Your task to perform on an android device: View the shopping cart on walmart.com. Search for logitech g903 on walmart.com, select the first entry, and add it to the cart. Image 0: 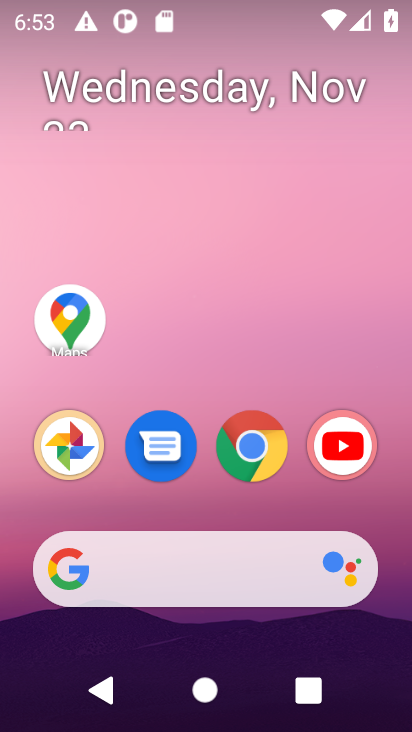
Step 0: click (247, 570)
Your task to perform on an android device: View the shopping cart on walmart.com. Search for logitech g903 on walmart.com, select the first entry, and add it to the cart. Image 1: 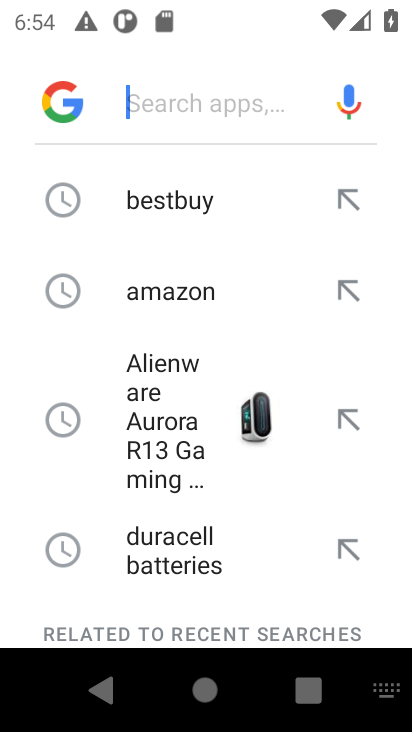
Step 1: type "walmarts"
Your task to perform on an android device: View the shopping cart on walmart.com. Search for logitech g903 on walmart.com, select the first entry, and add it to the cart. Image 2: 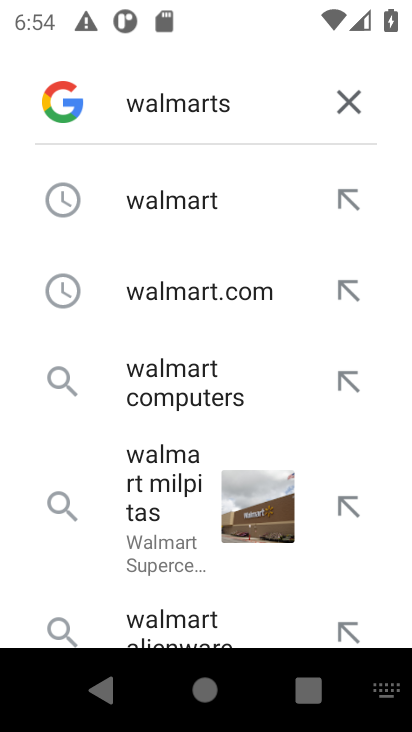
Step 2: click (192, 227)
Your task to perform on an android device: View the shopping cart on walmart.com. Search for logitech g903 on walmart.com, select the first entry, and add it to the cart. Image 3: 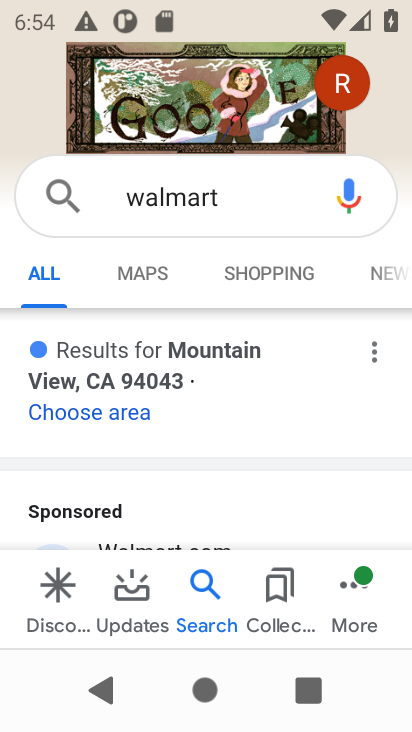
Step 3: drag from (241, 510) to (270, 175)
Your task to perform on an android device: View the shopping cart on walmart.com. Search for logitech g903 on walmart.com, select the first entry, and add it to the cart. Image 4: 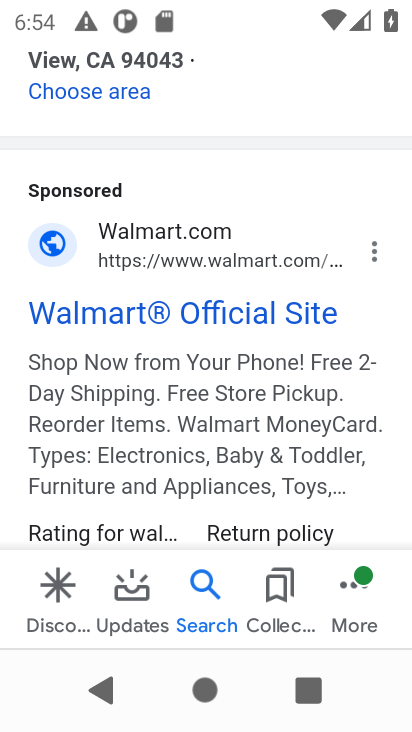
Step 4: click (169, 318)
Your task to perform on an android device: View the shopping cart on walmart.com. Search for logitech g903 on walmart.com, select the first entry, and add it to the cart. Image 5: 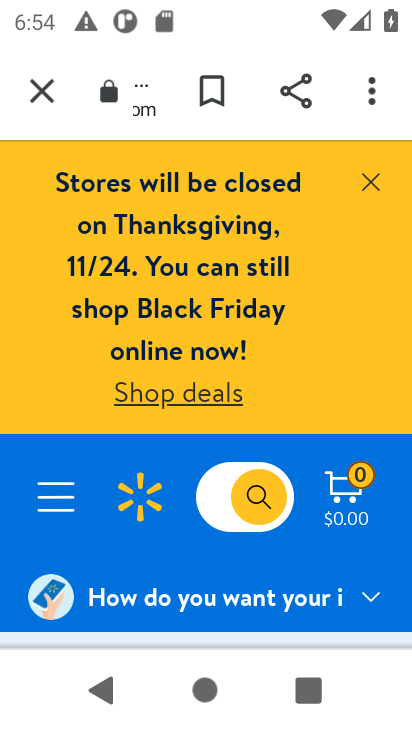
Step 5: click (368, 184)
Your task to perform on an android device: View the shopping cart on walmart.com. Search for logitech g903 on walmart.com, select the first entry, and add it to the cart. Image 6: 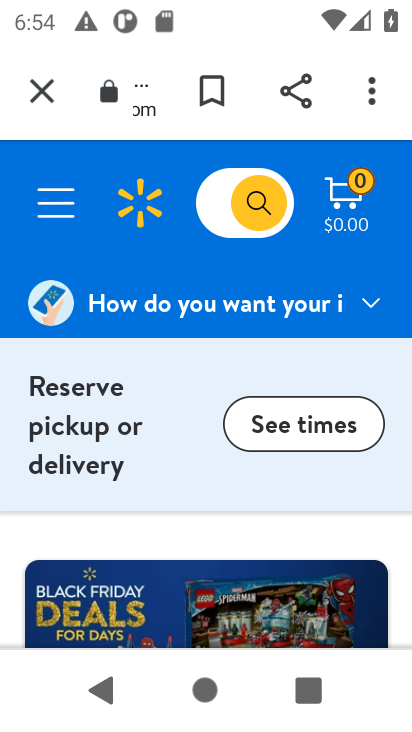
Step 6: click (230, 225)
Your task to perform on an android device: View the shopping cart on walmart.com. Search for logitech g903 on walmart.com, select the first entry, and add it to the cart. Image 7: 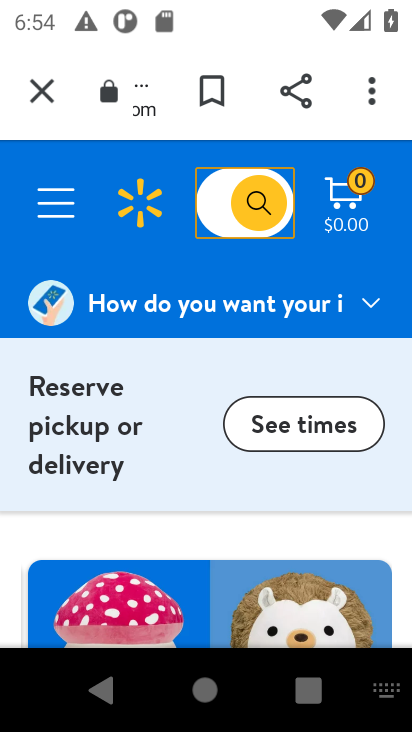
Step 7: type "logitech g502"
Your task to perform on an android device: View the shopping cart on walmart.com. Search for logitech g903 on walmart.com, select the first entry, and add it to the cart. Image 8: 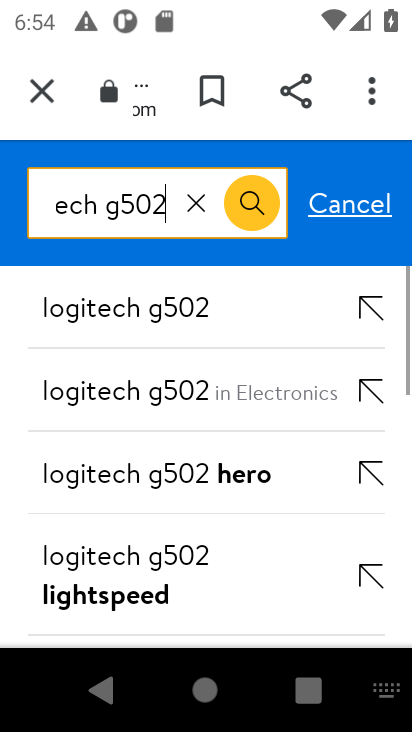
Step 8: click (229, 417)
Your task to perform on an android device: View the shopping cart on walmart.com. Search for logitech g903 on walmart.com, select the first entry, and add it to the cart. Image 9: 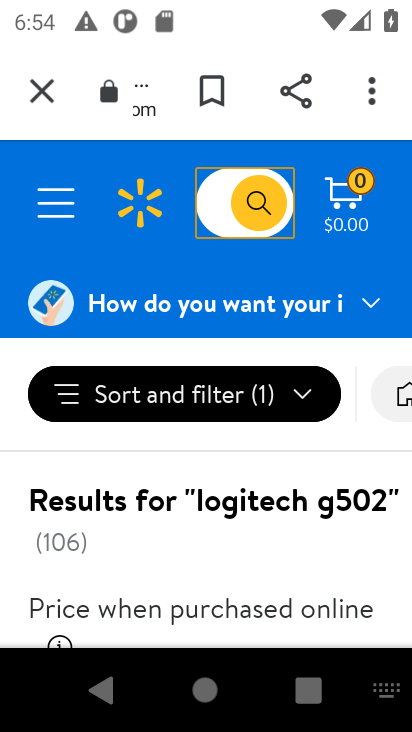
Step 9: drag from (216, 573) to (208, 88)
Your task to perform on an android device: View the shopping cart on walmart.com. Search for logitech g903 on walmart.com, select the first entry, and add it to the cart. Image 10: 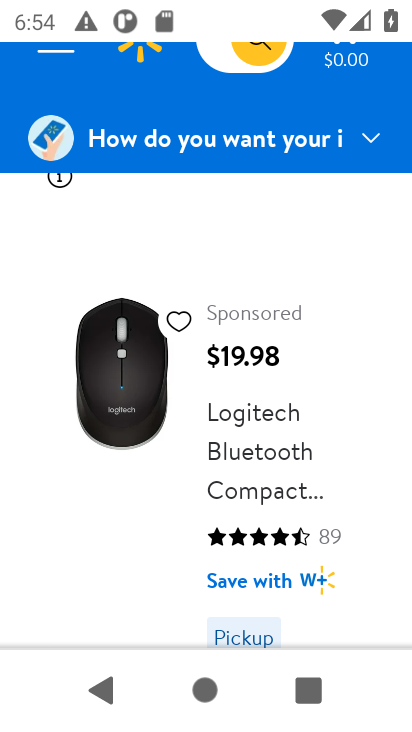
Step 10: click (317, 461)
Your task to perform on an android device: View the shopping cart on walmart.com. Search for logitech g903 on walmart.com, select the first entry, and add it to the cart. Image 11: 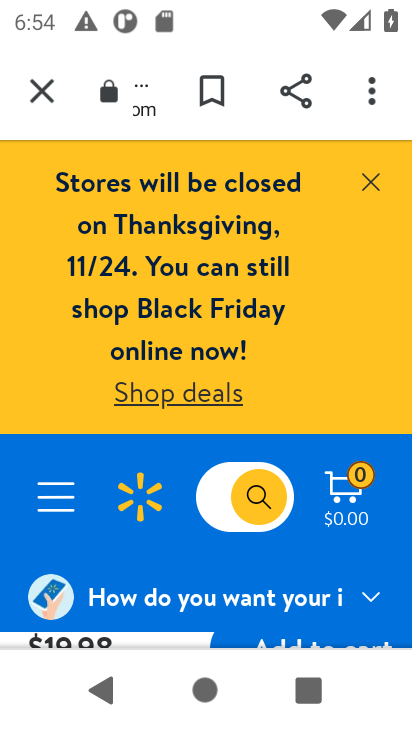
Step 11: click (359, 166)
Your task to perform on an android device: View the shopping cart on walmart.com. Search for logitech g903 on walmart.com, select the first entry, and add it to the cart. Image 12: 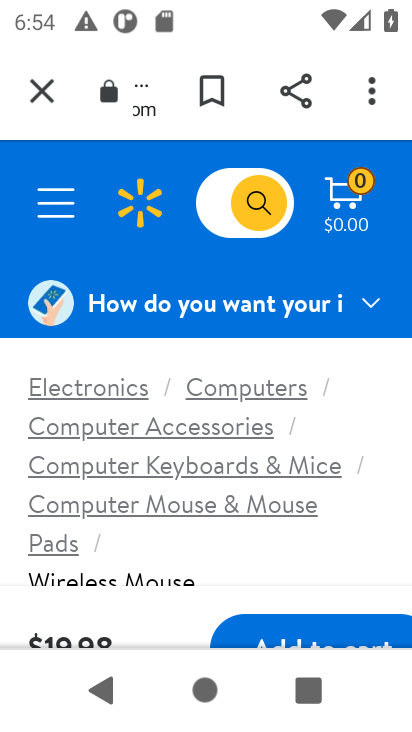
Step 12: task complete